Your task to perform on an android device: Open privacy settings Image 0: 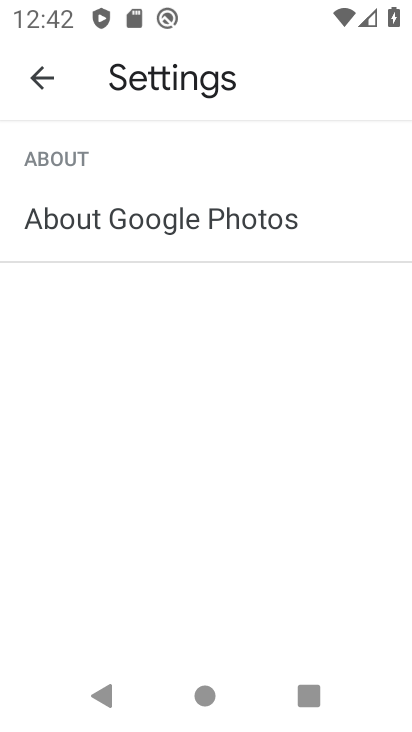
Step 0: press home button
Your task to perform on an android device: Open privacy settings Image 1: 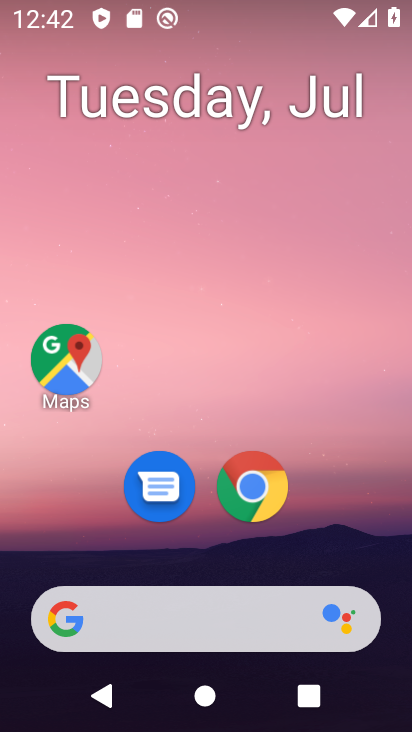
Step 1: drag from (356, 531) to (380, 118)
Your task to perform on an android device: Open privacy settings Image 2: 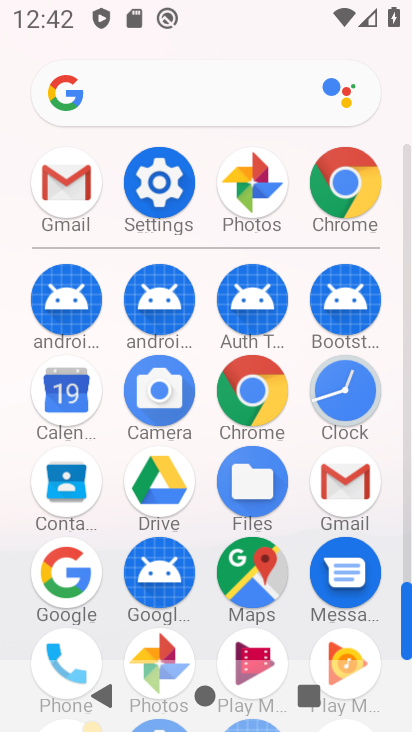
Step 2: click (255, 395)
Your task to perform on an android device: Open privacy settings Image 3: 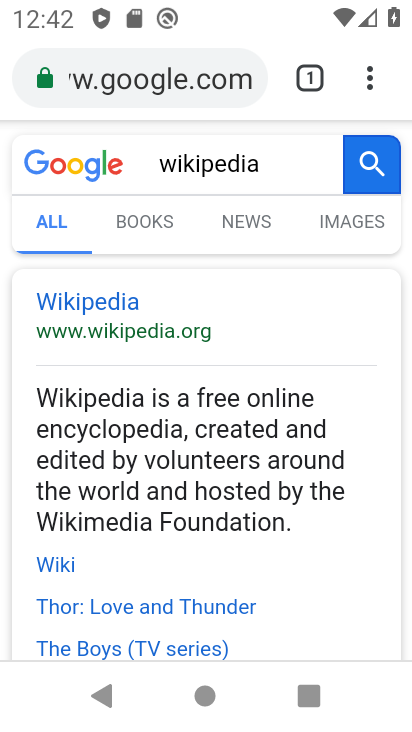
Step 3: click (369, 84)
Your task to perform on an android device: Open privacy settings Image 4: 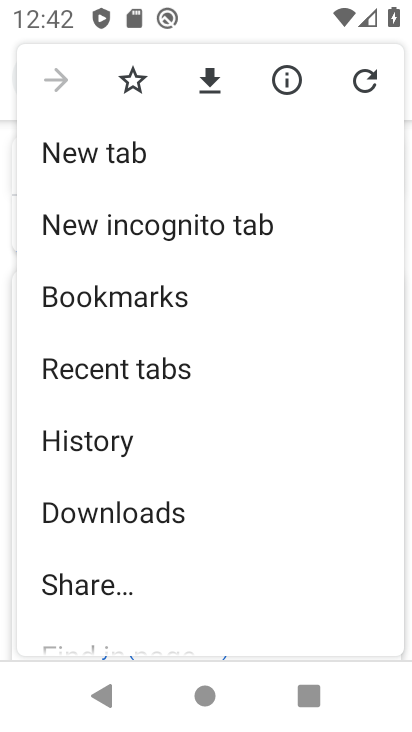
Step 4: drag from (317, 376) to (323, 309)
Your task to perform on an android device: Open privacy settings Image 5: 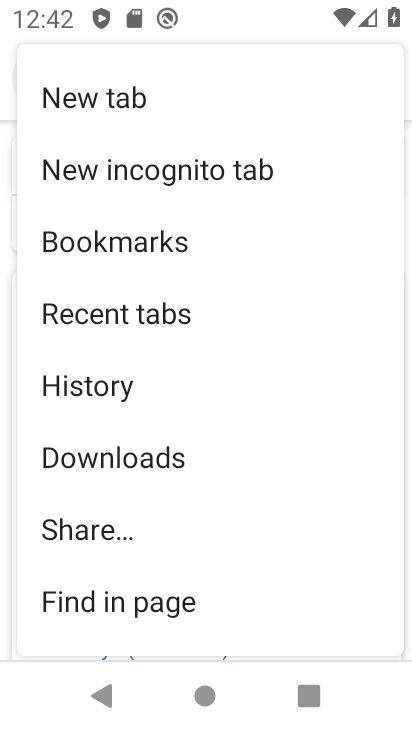
Step 5: drag from (325, 436) to (337, 340)
Your task to perform on an android device: Open privacy settings Image 6: 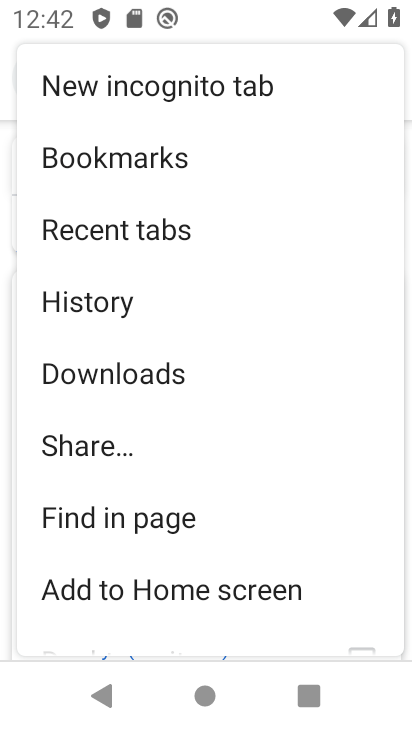
Step 6: drag from (320, 466) to (328, 368)
Your task to perform on an android device: Open privacy settings Image 7: 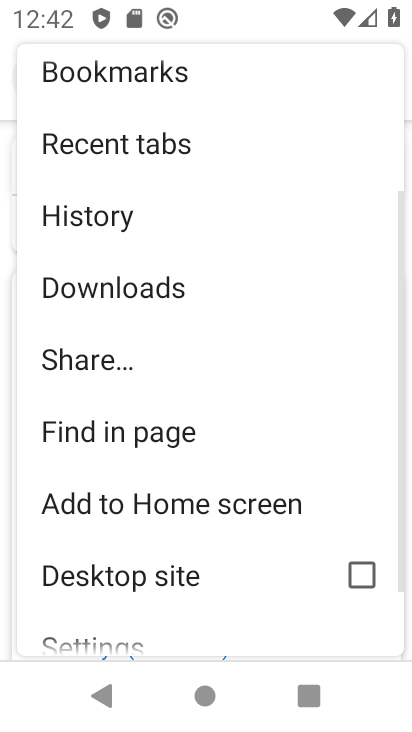
Step 7: drag from (323, 457) to (323, 324)
Your task to perform on an android device: Open privacy settings Image 8: 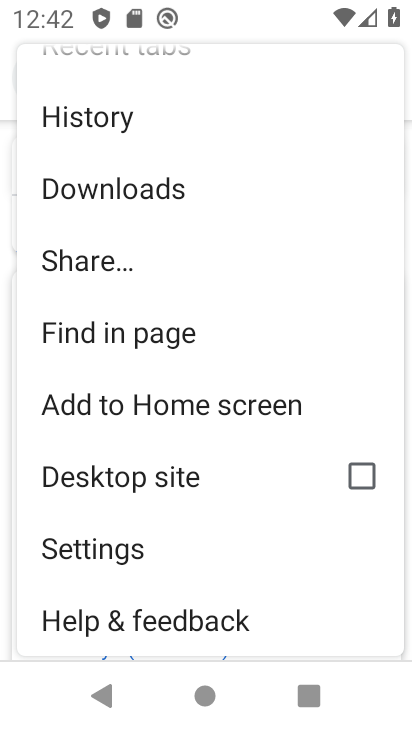
Step 8: click (216, 563)
Your task to perform on an android device: Open privacy settings Image 9: 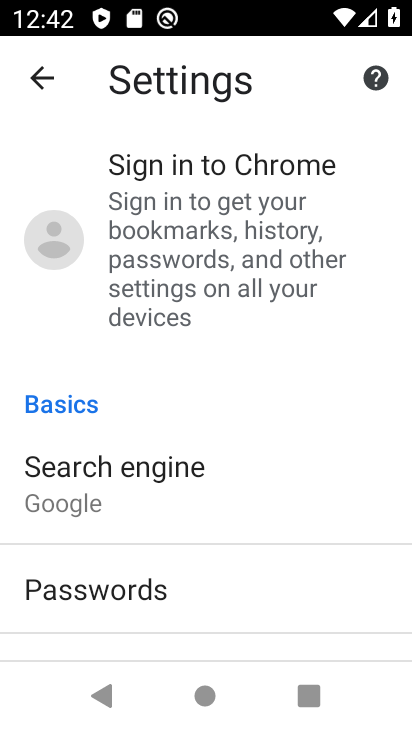
Step 9: drag from (291, 548) to (294, 460)
Your task to perform on an android device: Open privacy settings Image 10: 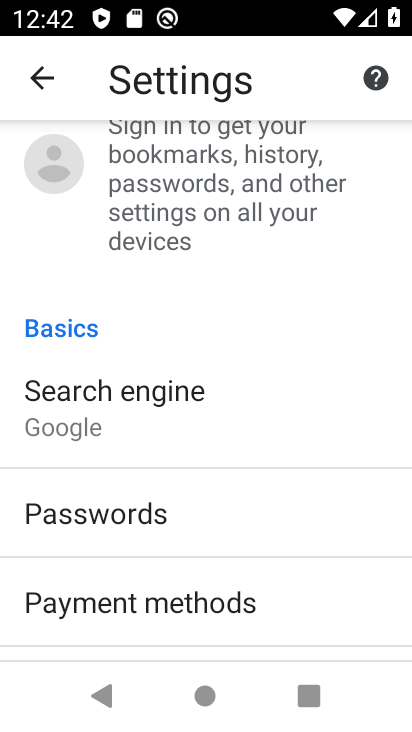
Step 10: drag from (313, 560) to (313, 454)
Your task to perform on an android device: Open privacy settings Image 11: 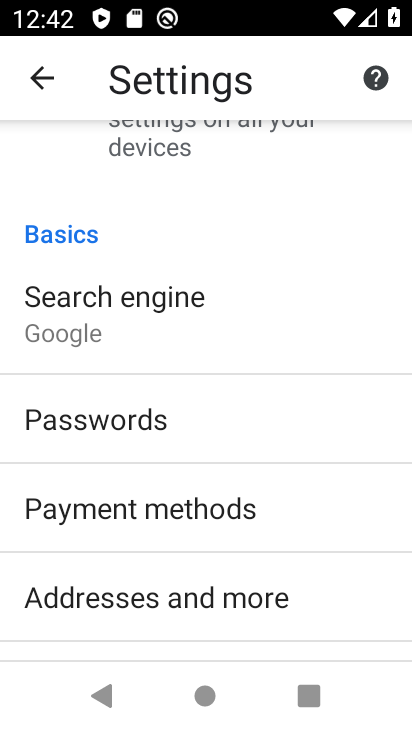
Step 11: drag from (320, 553) to (341, 425)
Your task to perform on an android device: Open privacy settings Image 12: 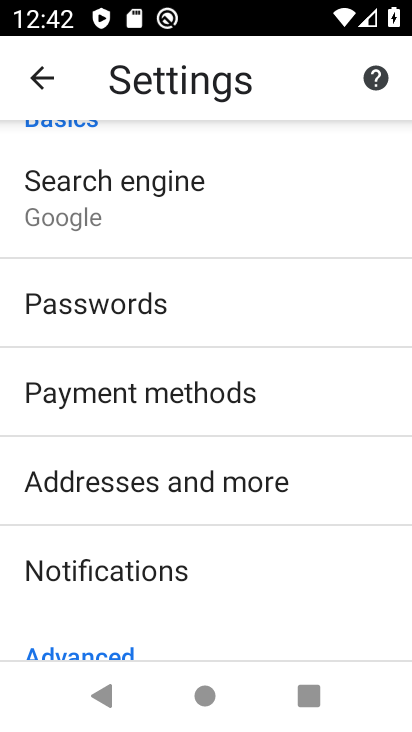
Step 12: drag from (346, 495) to (342, 381)
Your task to perform on an android device: Open privacy settings Image 13: 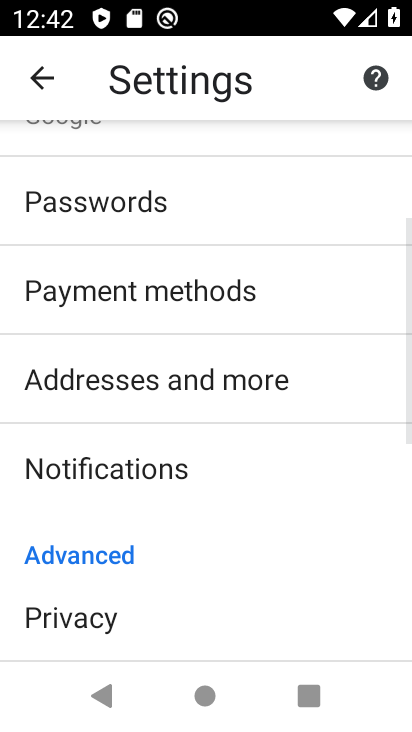
Step 13: drag from (319, 530) to (331, 323)
Your task to perform on an android device: Open privacy settings Image 14: 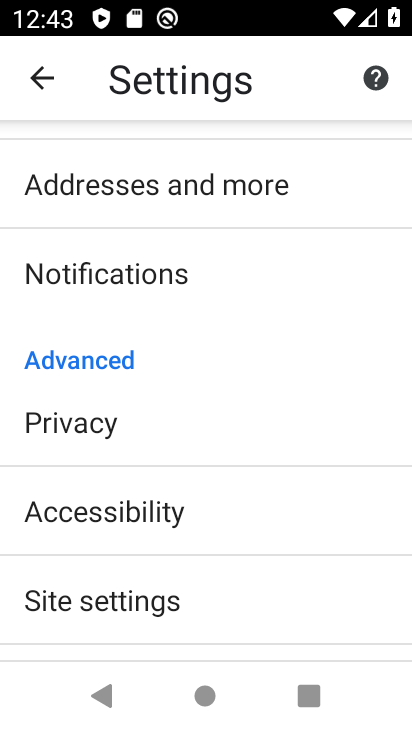
Step 14: click (213, 430)
Your task to perform on an android device: Open privacy settings Image 15: 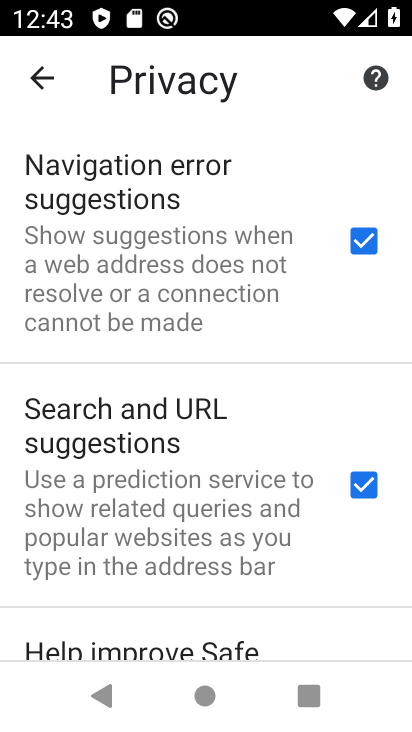
Step 15: task complete